Your task to perform on an android device: Open Maps and search for coffee Image 0: 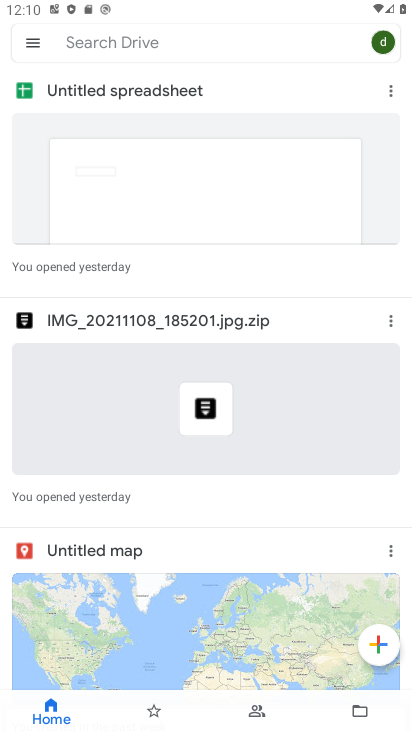
Step 0: press home button
Your task to perform on an android device: Open Maps and search for coffee Image 1: 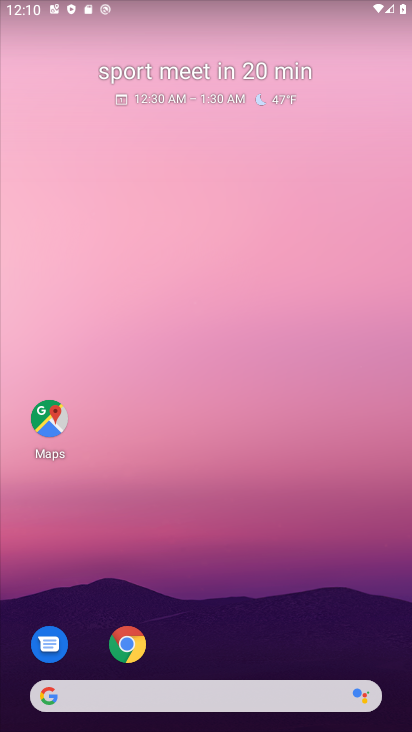
Step 1: click (47, 432)
Your task to perform on an android device: Open Maps and search for coffee Image 2: 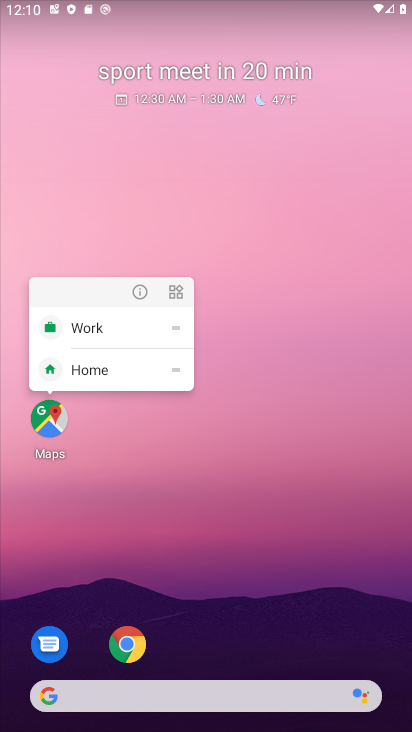
Step 2: click (58, 420)
Your task to perform on an android device: Open Maps and search for coffee Image 3: 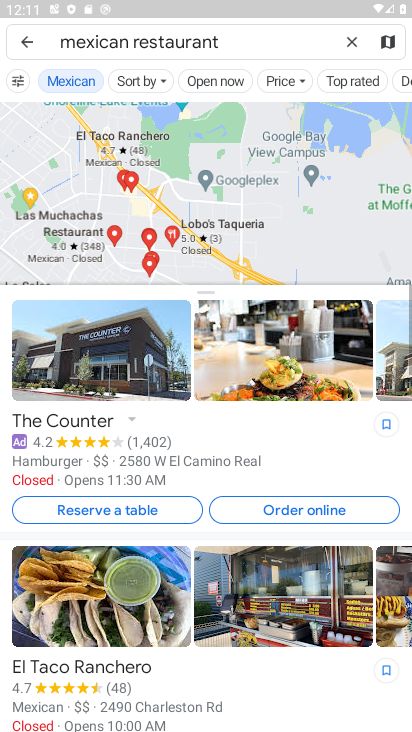
Step 3: click (348, 42)
Your task to perform on an android device: Open Maps and search for coffee Image 4: 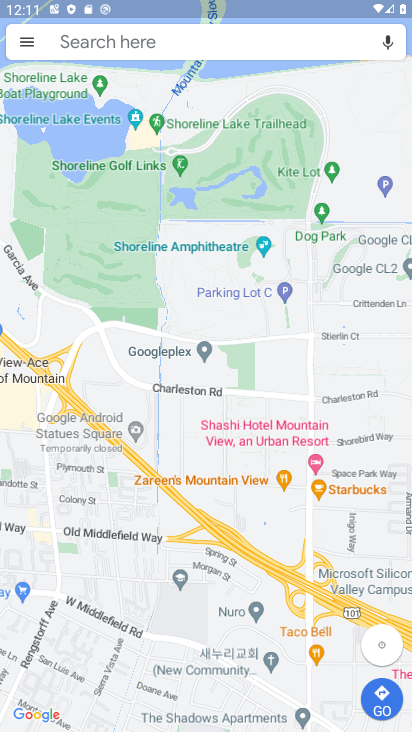
Step 4: click (208, 41)
Your task to perform on an android device: Open Maps and search for coffee Image 5: 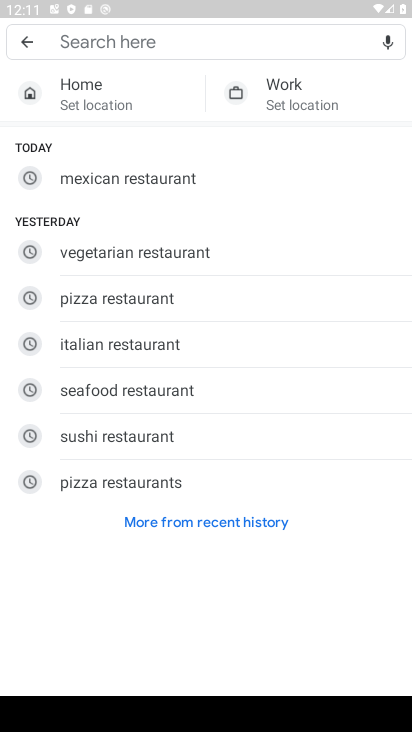
Step 5: click (153, 38)
Your task to perform on an android device: Open Maps and search for coffee Image 6: 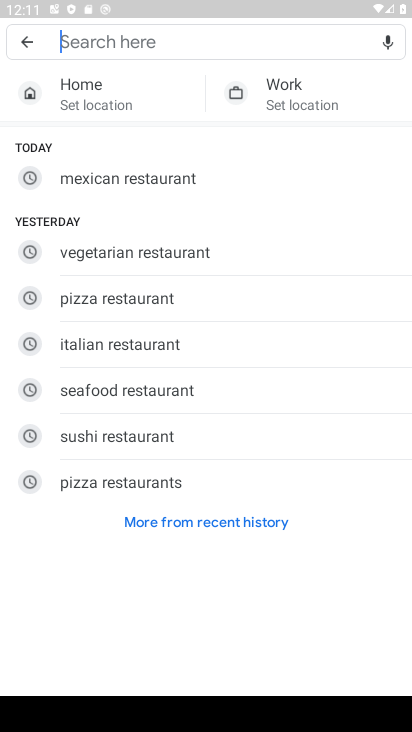
Step 6: type "coffee"
Your task to perform on an android device: Open Maps and search for coffee Image 7: 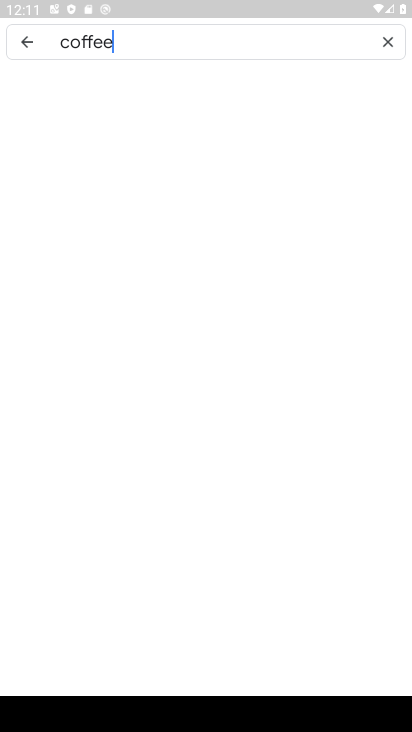
Step 7: type ""
Your task to perform on an android device: Open Maps and search for coffee Image 8: 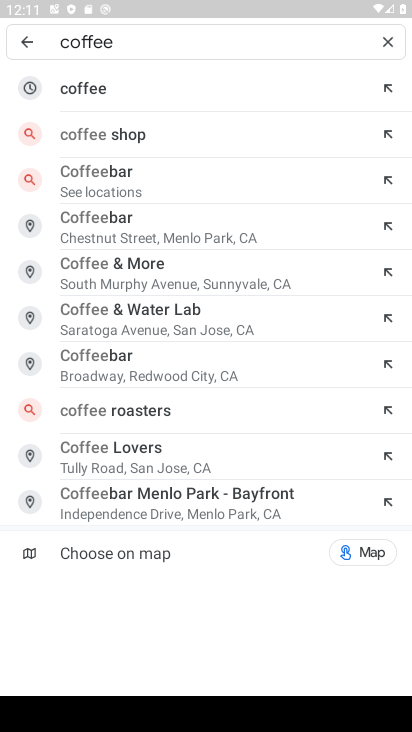
Step 8: click (171, 95)
Your task to perform on an android device: Open Maps and search for coffee Image 9: 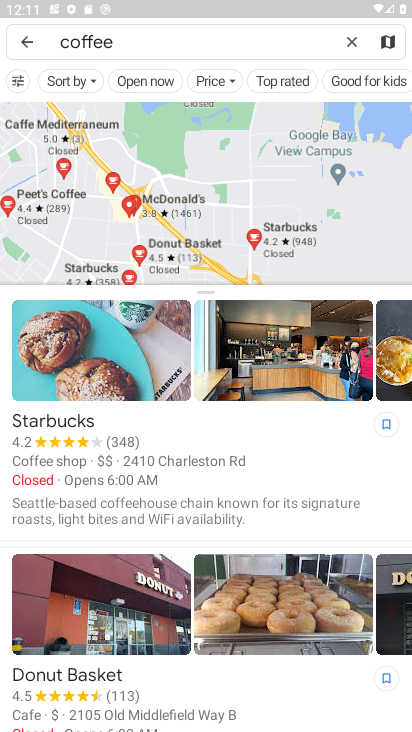
Step 9: task complete